Your task to perform on an android device: Turn on the flashlight Image 0: 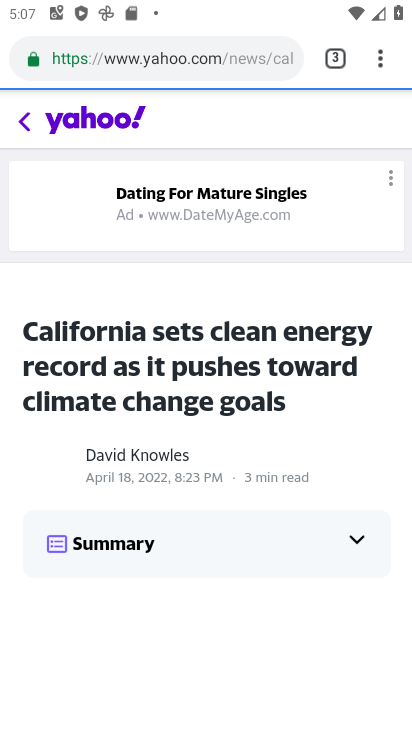
Step 0: drag from (241, 664) to (173, 219)
Your task to perform on an android device: Turn on the flashlight Image 1: 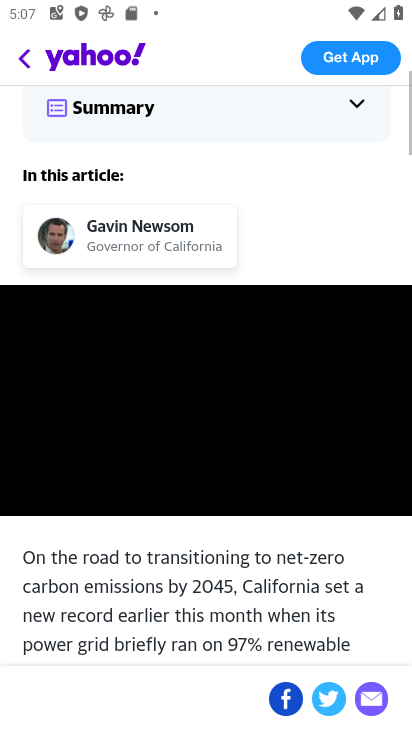
Step 1: task complete